Your task to perform on an android device: Open CNN.com Image 0: 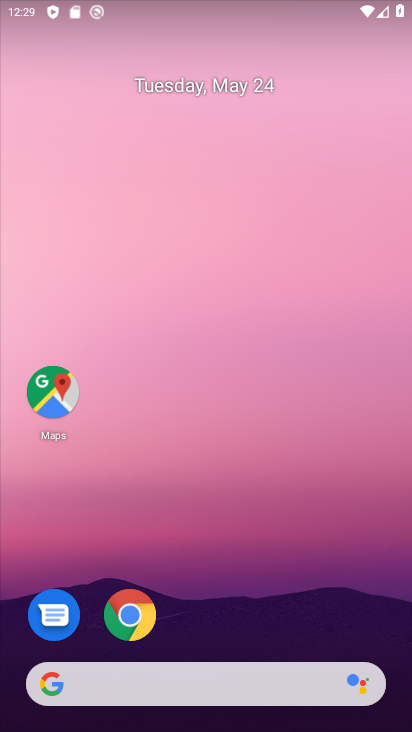
Step 0: press home button
Your task to perform on an android device: Open CNN.com Image 1: 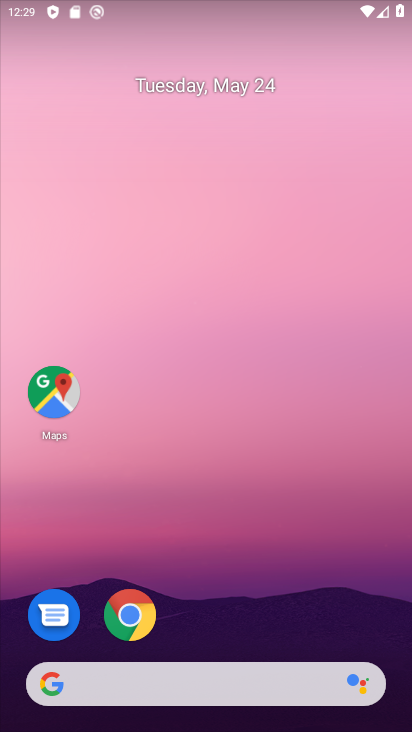
Step 1: click (123, 611)
Your task to perform on an android device: Open CNN.com Image 2: 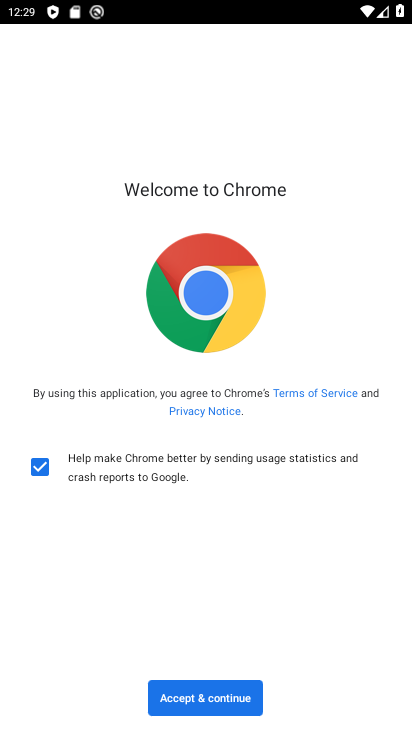
Step 2: click (200, 691)
Your task to perform on an android device: Open CNN.com Image 3: 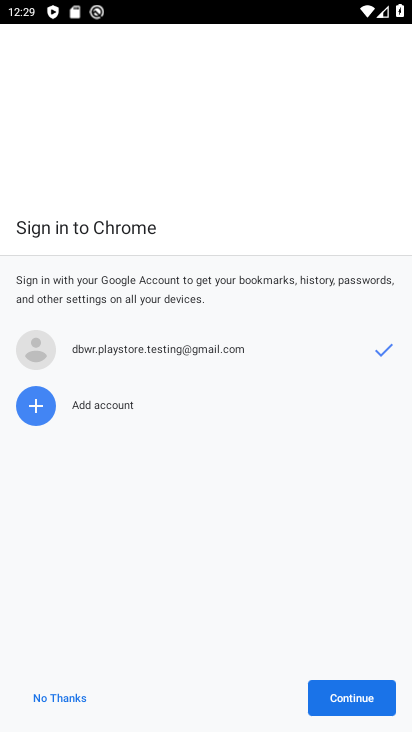
Step 3: click (353, 701)
Your task to perform on an android device: Open CNN.com Image 4: 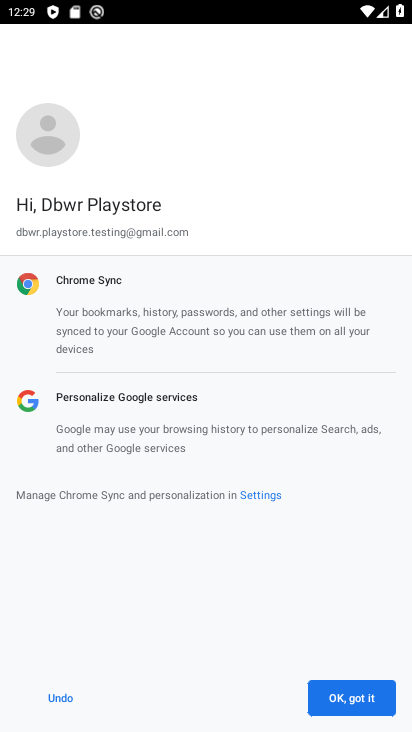
Step 4: click (345, 690)
Your task to perform on an android device: Open CNN.com Image 5: 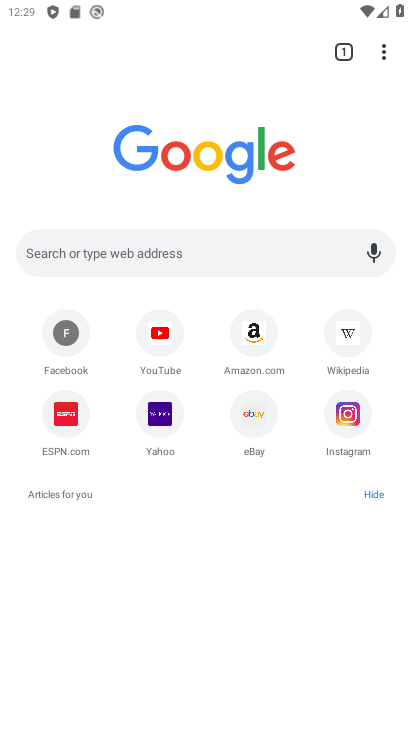
Step 5: click (121, 245)
Your task to perform on an android device: Open CNN.com Image 6: 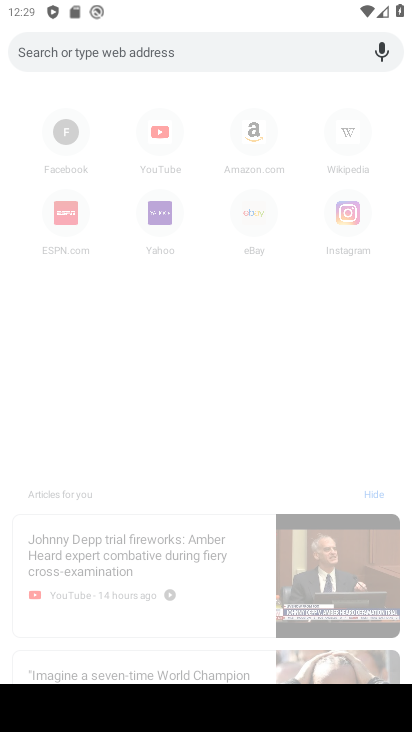
Step 6: type "cnn.com"
Your task to perform on an android device: Open CNN.com Image 7: 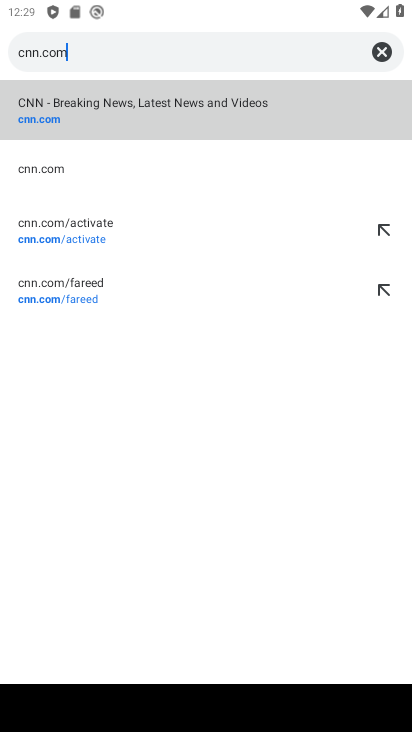
Step 7: click (79, 115)
Your task to perform on an android device: Open CNN.com Image 8: 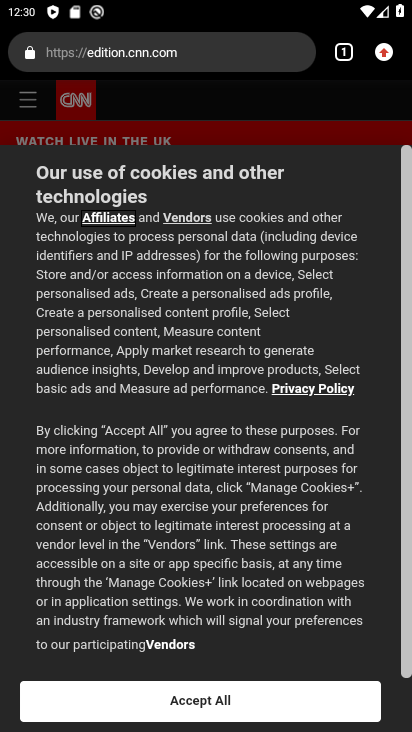
Step 8: click (208, 691)
Your task to perform on an android device: Open CNN.com Image 9: 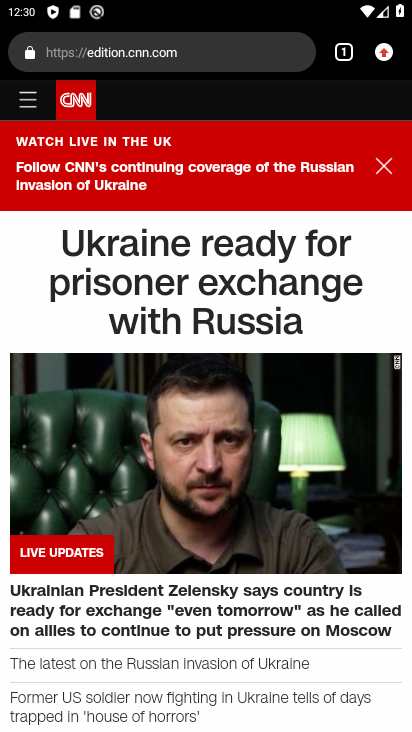
Step 9: task complete